Your task to perform on an android device: turn on airplane mode Image 0: 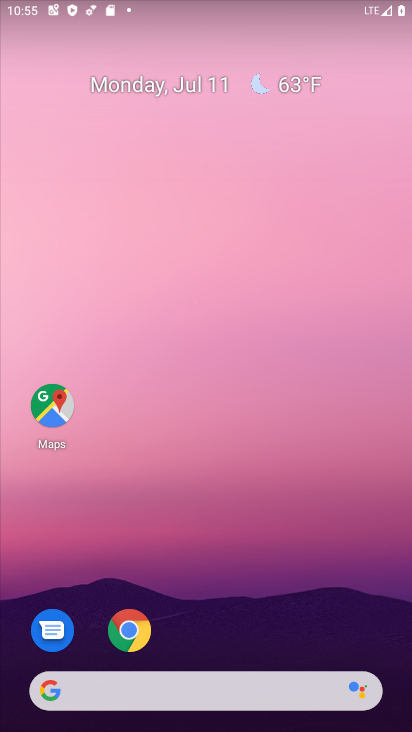
Step 0: drag from (393, 644) to (335, 93)
Your task to perform on an android device: turn on airplane mode Image 1: 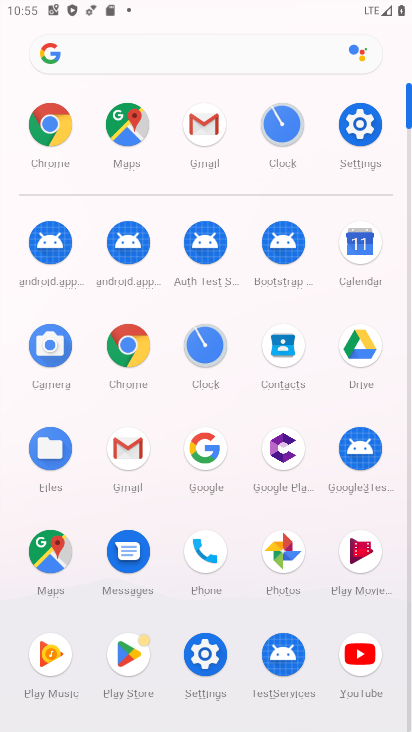
Step 1: click (204, 655)
Your task to perform on an android device: turn on airplane mode Image 2: 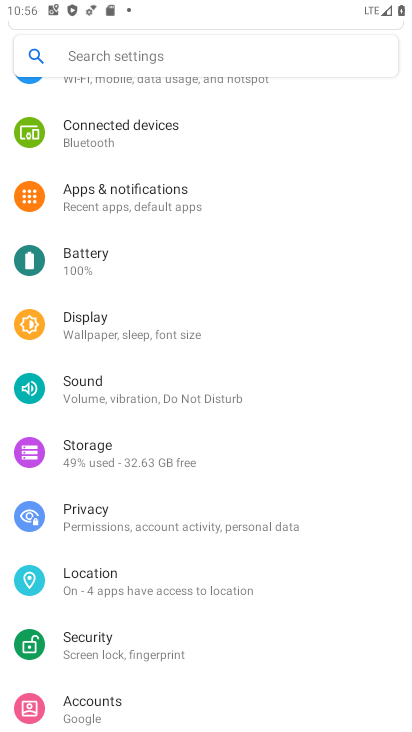
Step 2: drag from (320, 148) to (302, 396)
Your task to perform on an android device: turn on airplane mode Image 3: 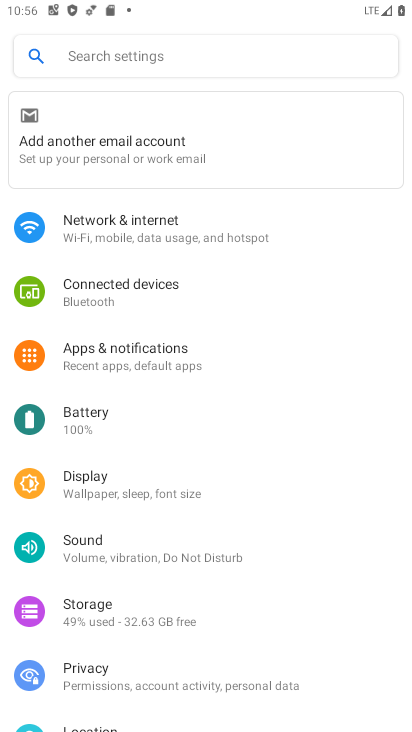
Step 3: click (115, 228)
Your task to perform on an android device: turn on airplane mode Image 4: 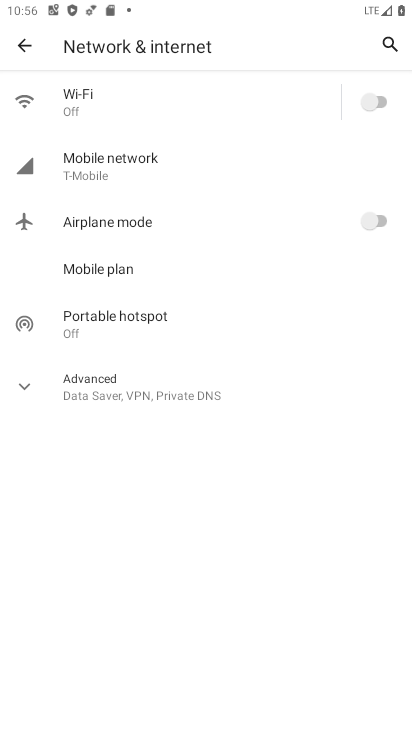
Step 4: click (384, 216)
Your task to perform on an android device: turn on airplane mode Image 5: 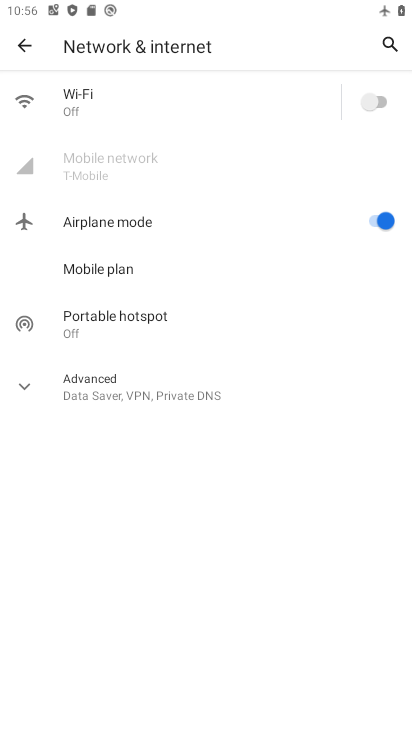
Step 5: task complete